Your task to perform on an android device: find photos in the google photos app Image 0: 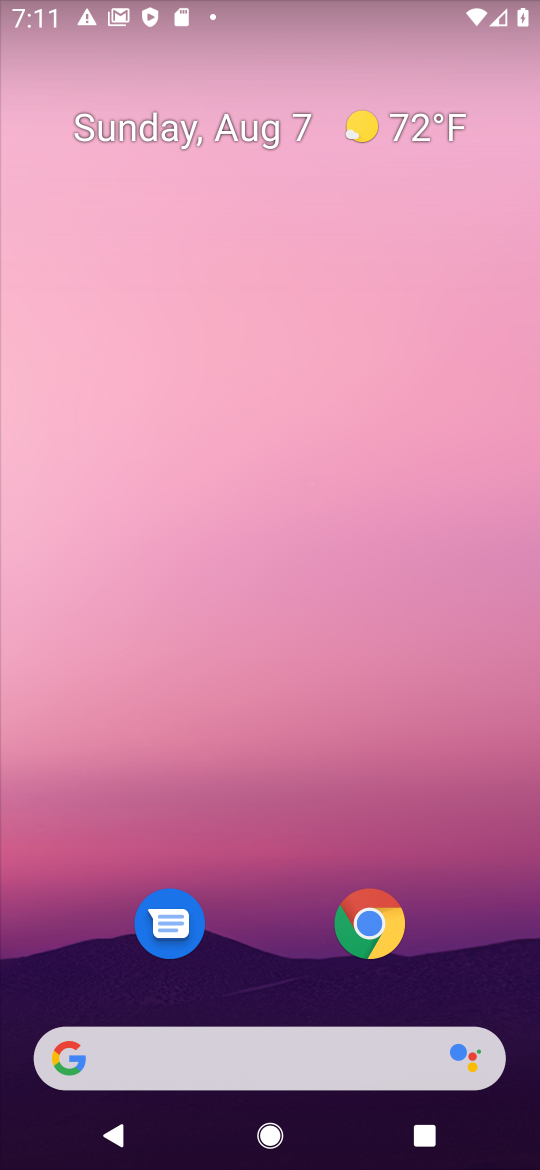
Step 0: drag from (467, 945) to (199, 40)
Your task to perform on an android device: find photos in the google photos app Image 1: 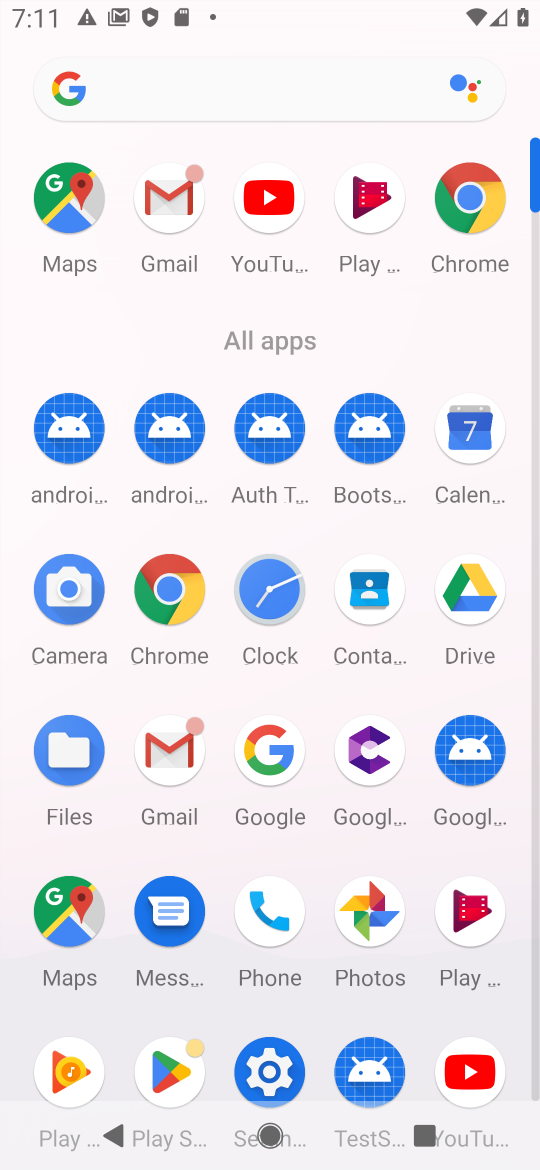
Step 1: click (365, 913)
Your task to perform on an android device: find photos in the google photos app Image 2: 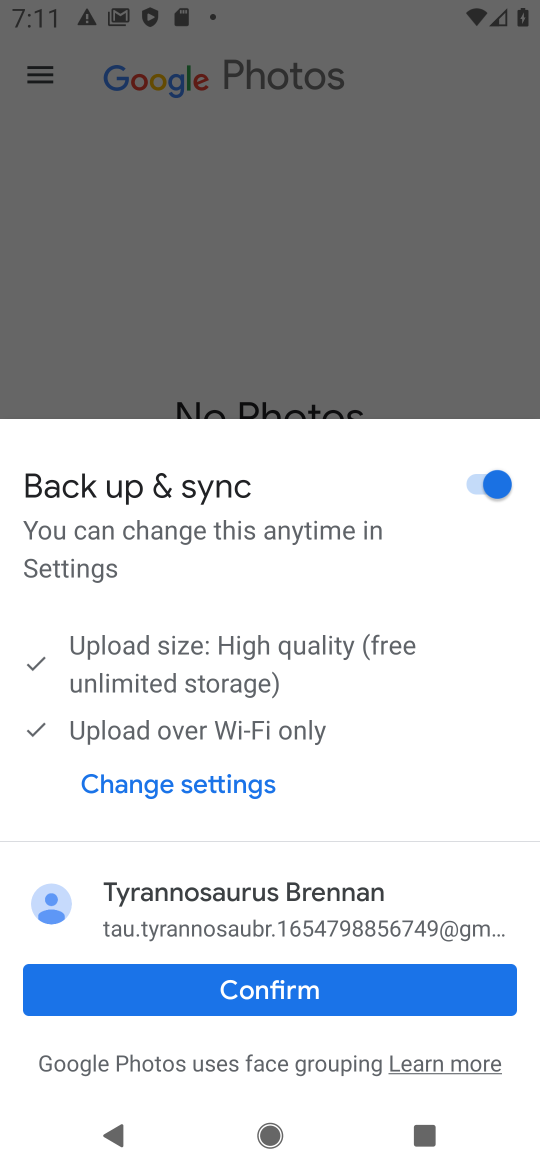
Step 2: click (245, 981)
Your task to perform on an android device: find photos in the google photos app Image 3: 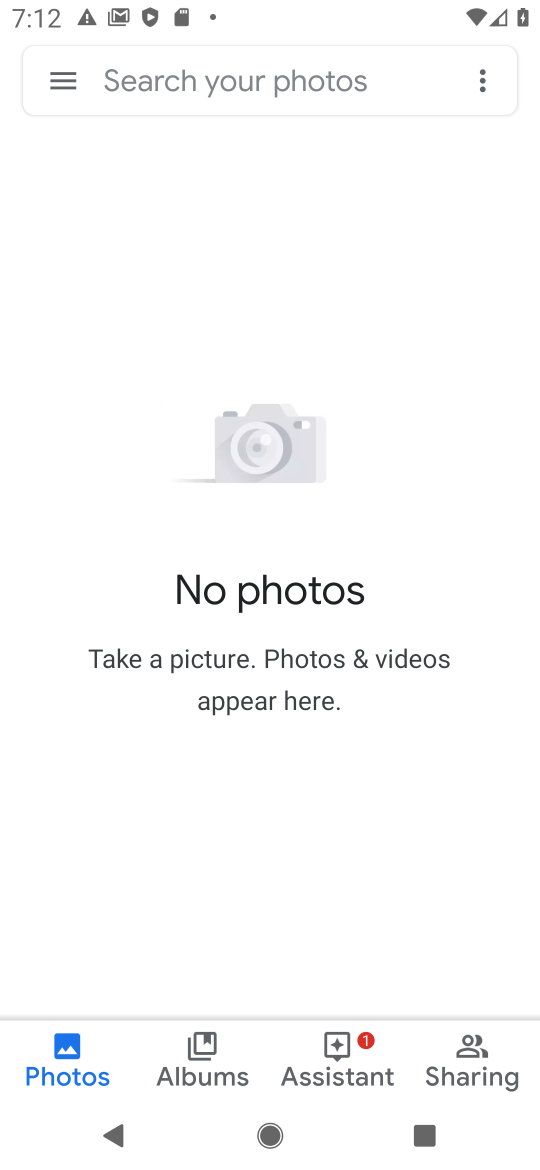
Step 3: task complete